Your task to perform on an android device: toggle data saver in the chrome app Image 0: 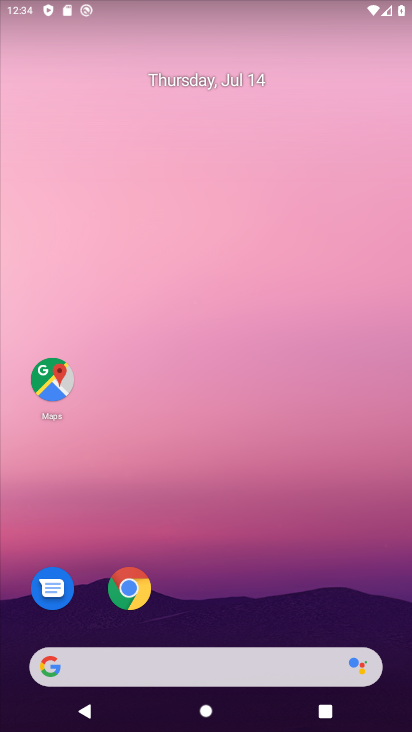
Step 0: click (136, 583)
Your task to perform on an android device: toggle data saver in the chrome app Image 1: 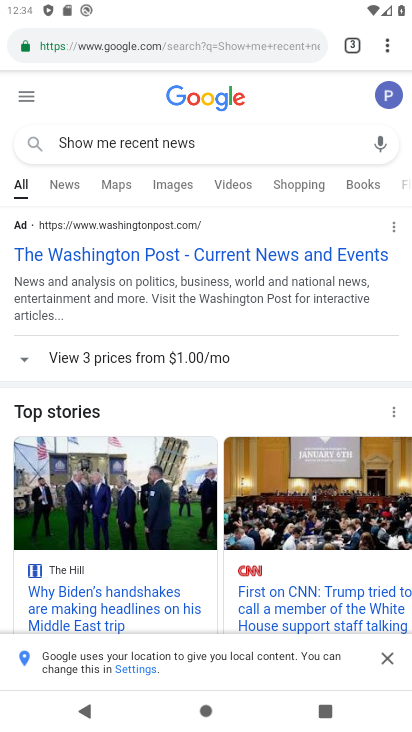
Step 1: click (393, 46)
Your task to perform on an android device: toggle data saver in the chrome app Image 2: 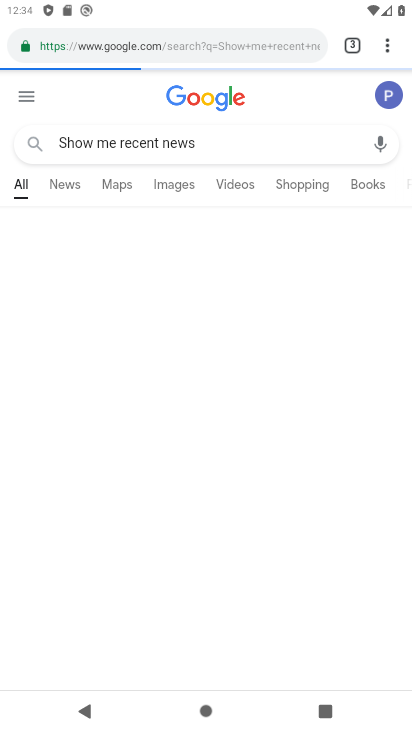
Step 2: click (393, 46)
Your task to perform on an android device: toggle data saver in the chrome app Image 3: 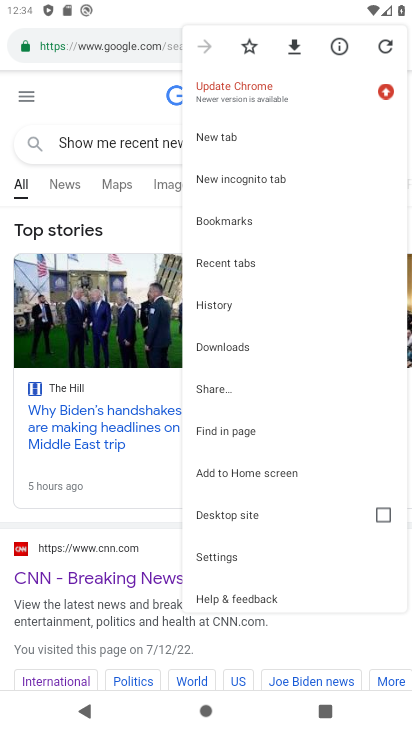
Step 3: click (239, 553)
Your task to perform on an android device: toggle data saver in the chrome app Image 4: 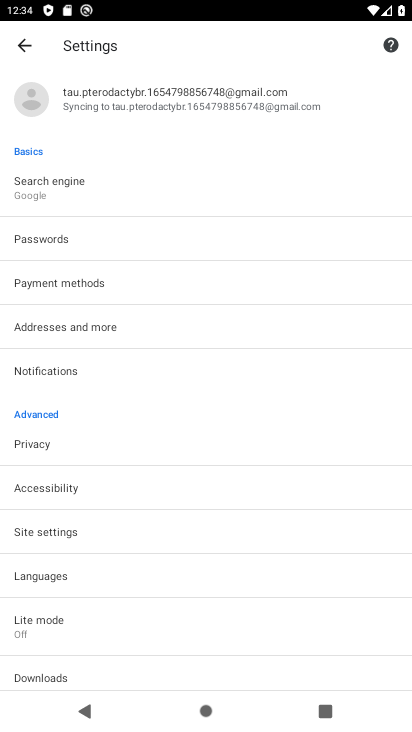
Step 4: drag from (140, 573) to (204, 340)
Your task to perform on an android device: toggle data saver in the chrome app Image 5: 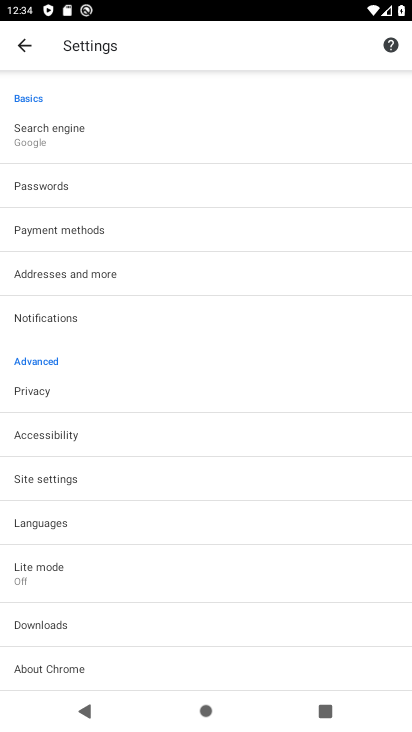
Step 5: click (103, 567)
Your task to perform on an android device: toggle data saver in the chrome app Image 6: 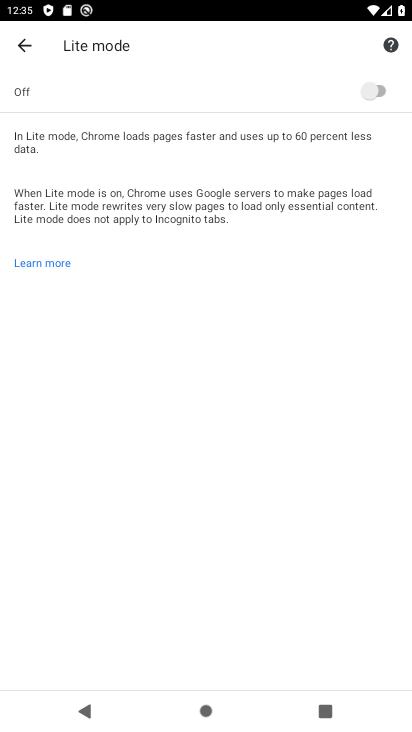
Step 6: click (381, 85)
Your task to perform on an android device: toggle data saver in the chrome app Image 7: 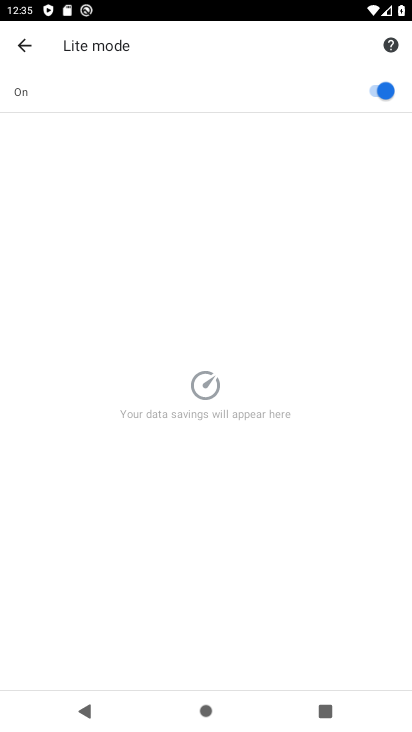
Step 7: task complete